Your task to perform on an android device: When is my next meeting? Image 0: 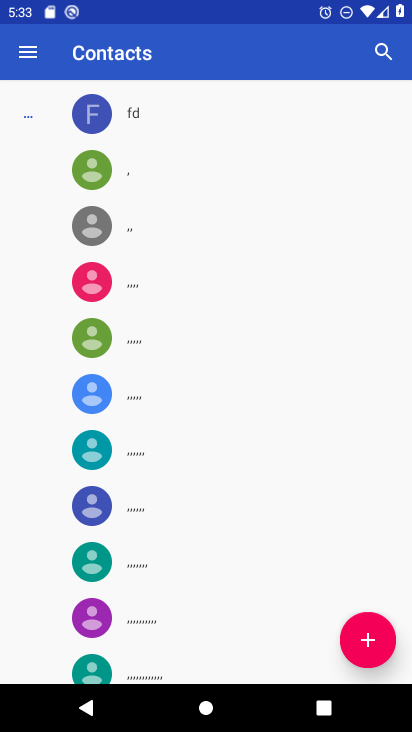
Step 0: press home button
Your task to perform on an android device: When is my next meeting? Image 1: 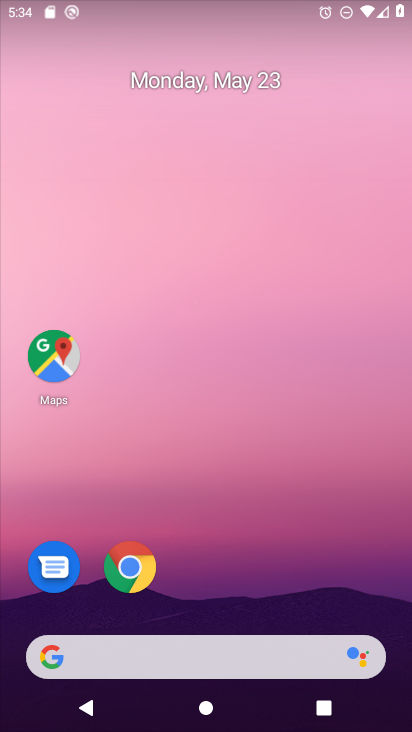
Step 1: drag from (226, 586) to (202, 314)
Your task to perform on an android device: When is my next meeting? Image 2: 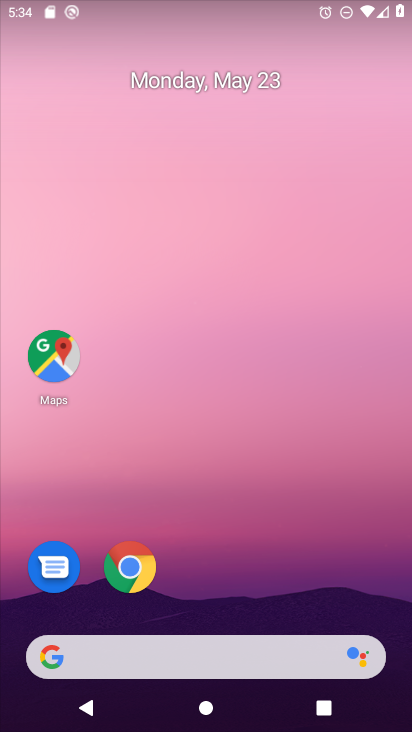
Step 2: drag from (246, 577) to (268, 191)
Your task to perform on an android device: When is my next meeting? Image 3: 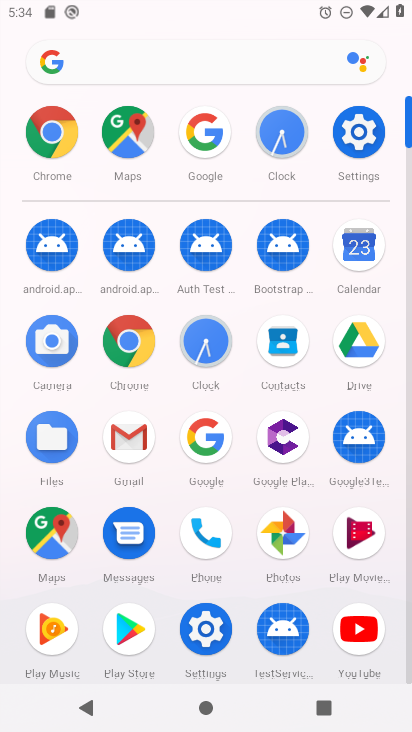
Step 3: click (366, 253)
Your task to perform on an android device: When is my next meeting? Image 4: 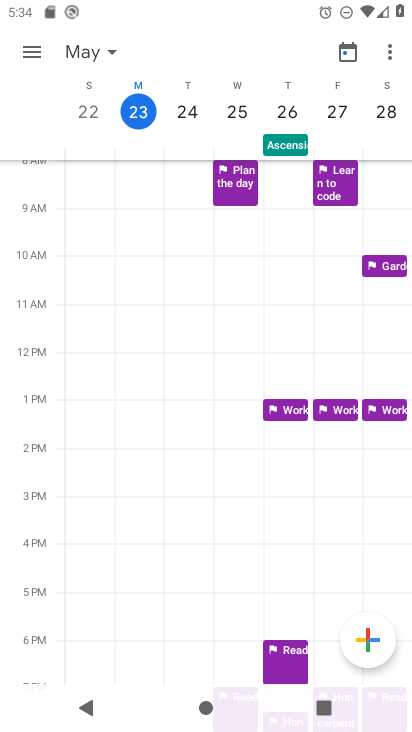
Step 4: click (356, 49)
Your task to perform on an android device: When is my next meeting? Image 5: 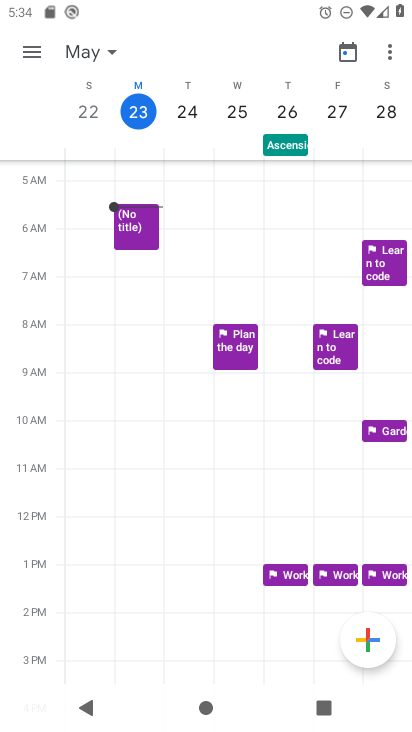
Step 5: click (113, 54)
Your task to perform on an android device: When is my next meeting? Image 6: 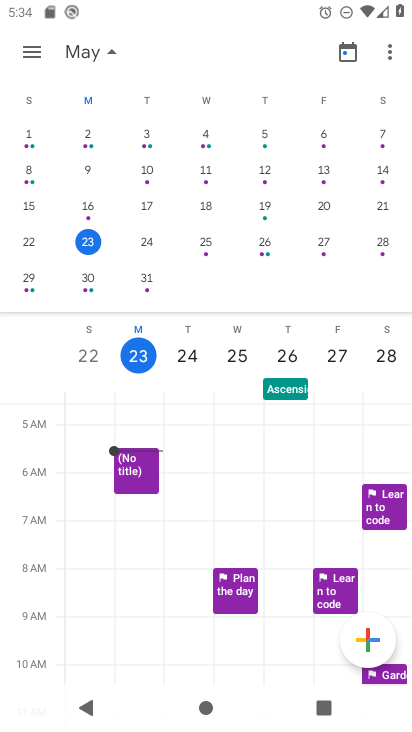
Step 6: click (110, 48)
Your task to perform on an android device: When is my next meeting? Image 7: 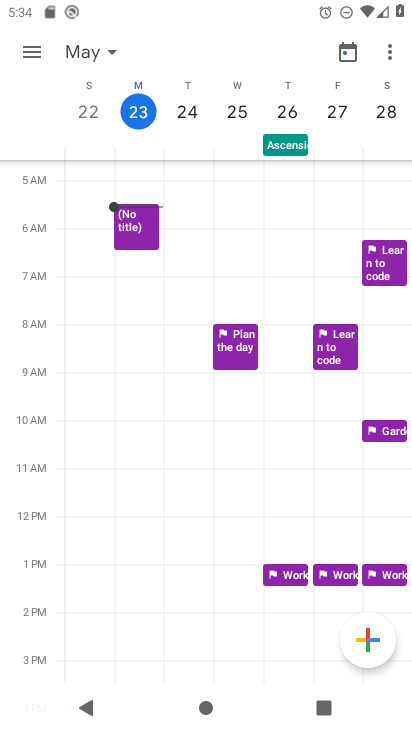
Step 7: click (112, 56)
Your task to perform on an android device: When is my next meeting? Image 8: 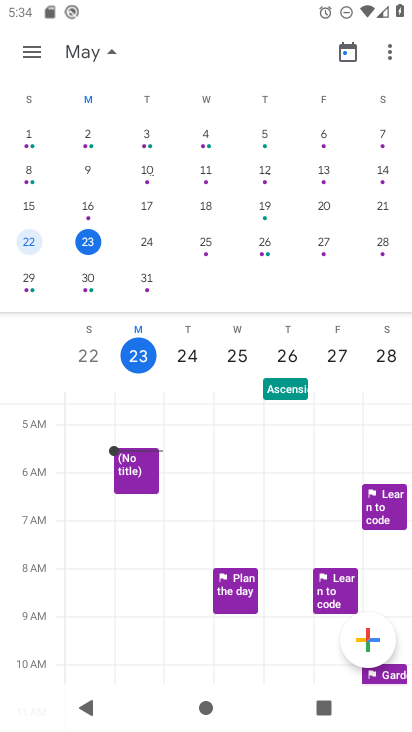
Step 8: click (215, 236)
Your task to perform on an android device: When is my next meeting? Image 9: 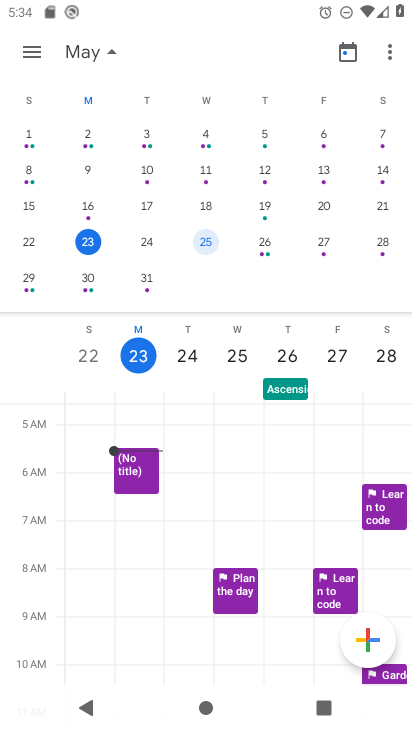
Step 9: click (35, 42)
Your task to perform on an android device: When is my next meeting? Image 10: 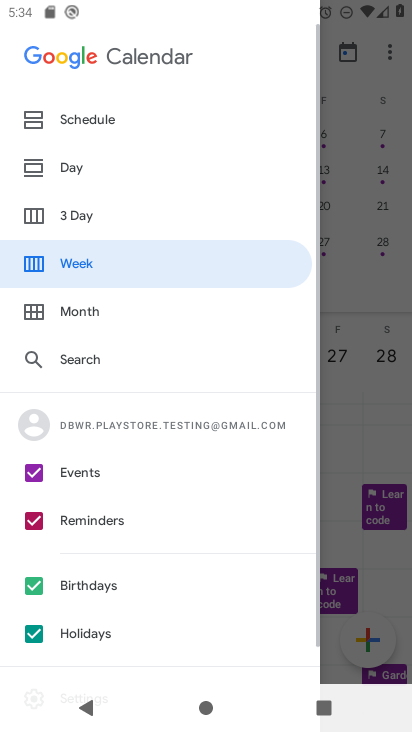
Step 10: click (93, 120)
Your task to perform on an android device: When is my next meeting? Image 11: 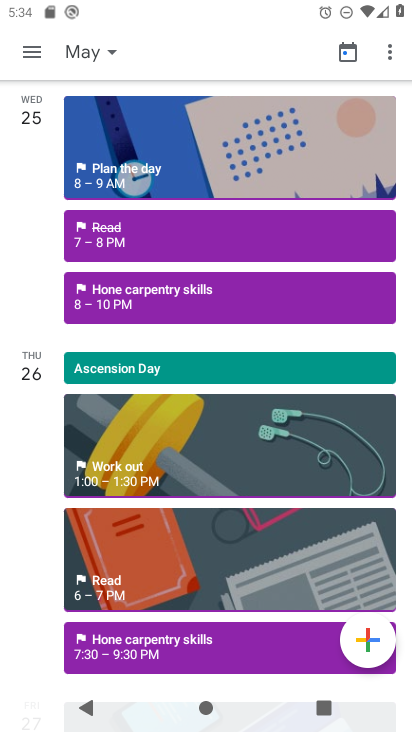
Step 11: task complete